Your task to perform on an android device: Show the shopping cart on bestbuy.com. Add "razer huntsman" to the cart on bestbuy.com, then select checkout. Image 0: 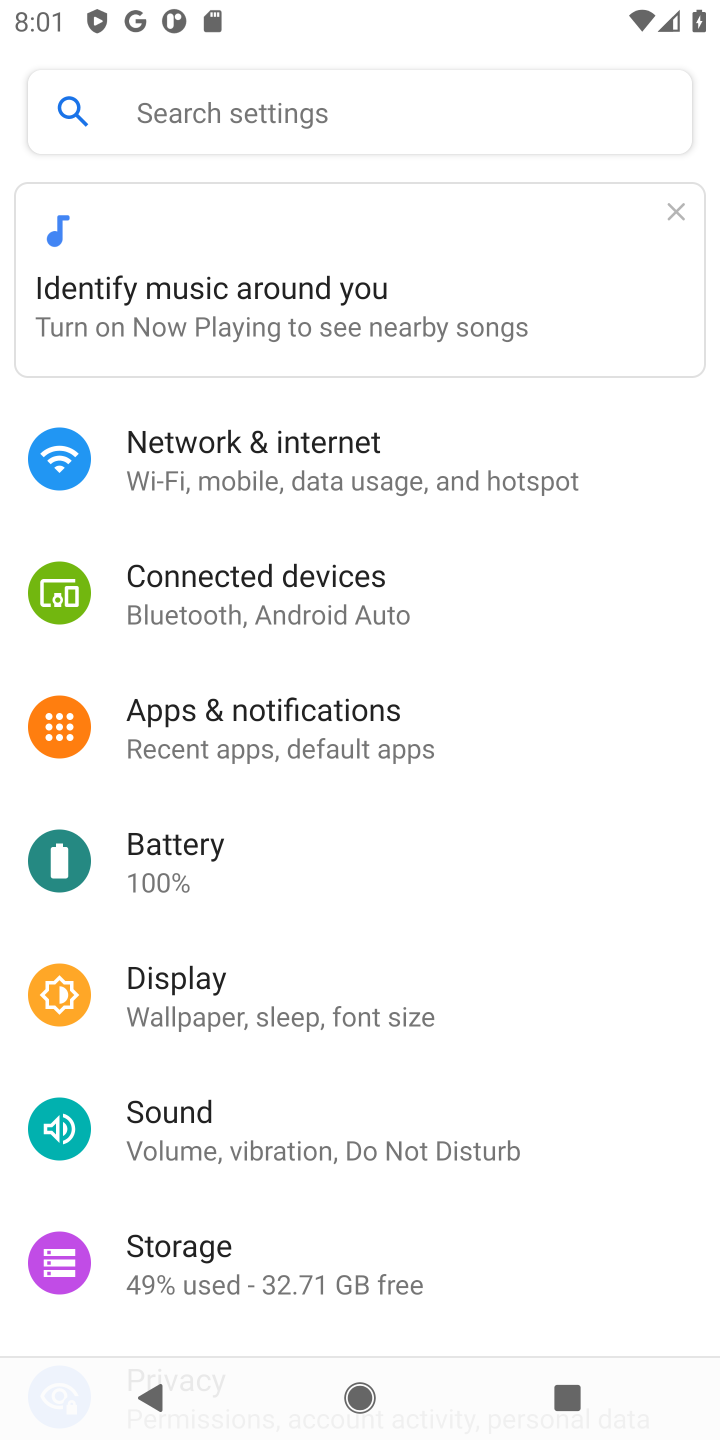
Step 0: press home button
Your task to perform on an android device: Show the shopping cart on bestbuy.com. Add "razer huntsman" to the cart on bestbuy.com, then select checkout. Image 1: 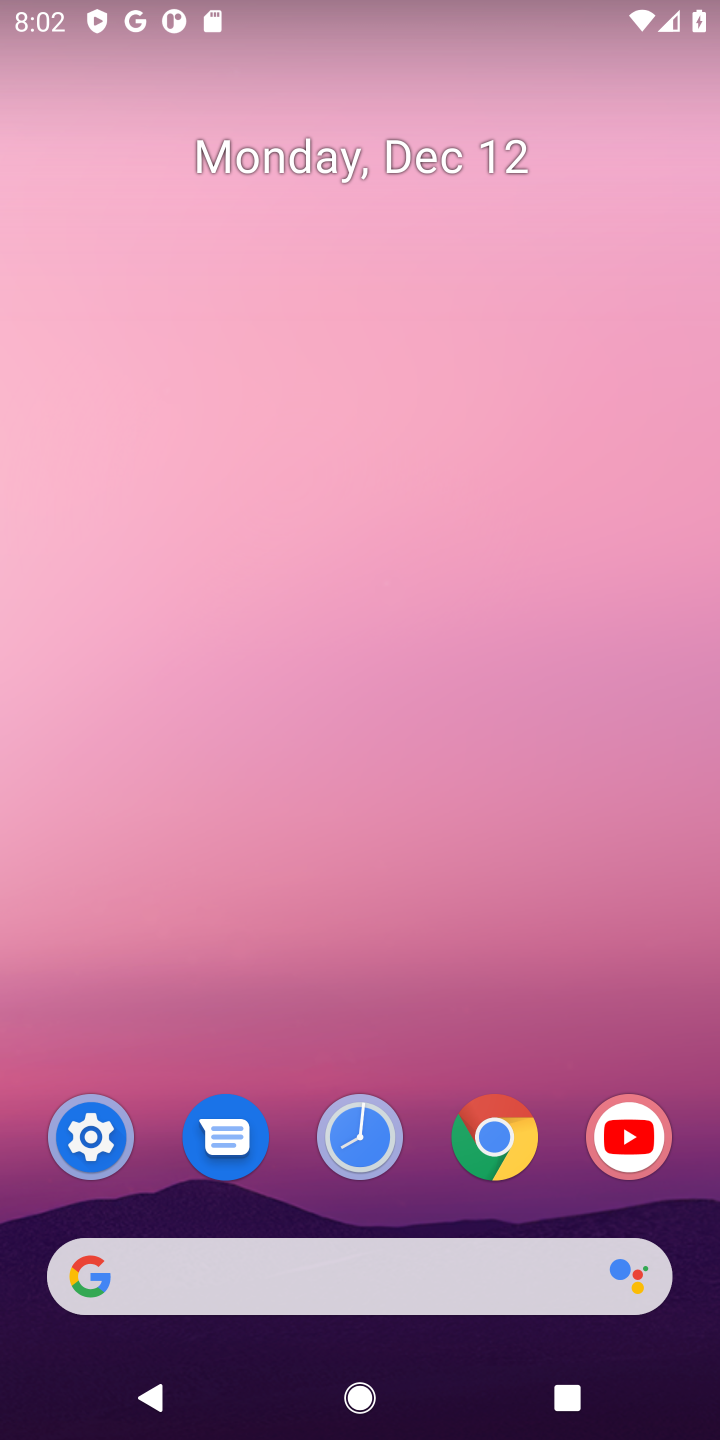
Step 1: click (474, 1154)
Your task to perform on an android device: Show the shopping cart on bestbuy.com. Add "razer huntsman" to the cart on bestbuy.com, then select checkout. Image 2: 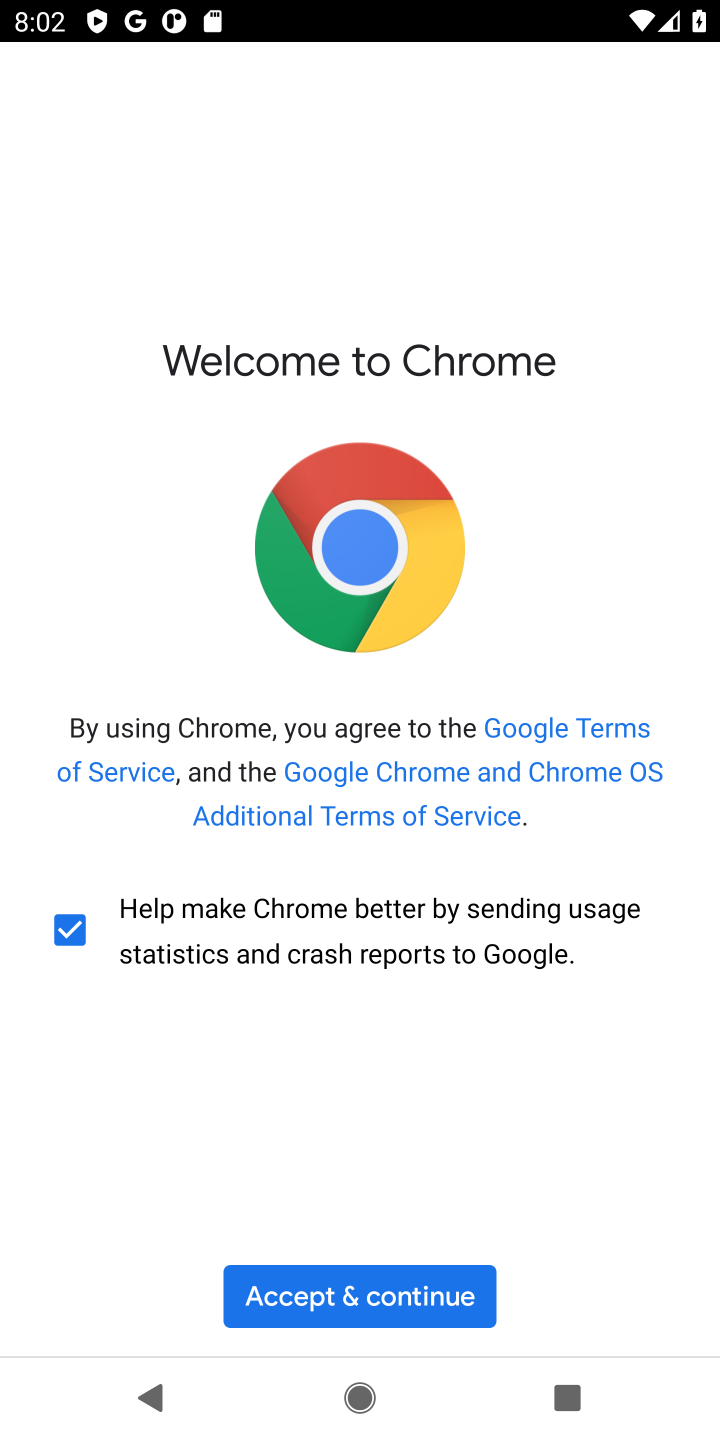
Step 2: click (377, 1294)
Your task to perform on an android device: Show the shopping cart on bestbuy.com. Add "razer huntsman" to the cart on bestbuy.com, then select checkout. Image 3: 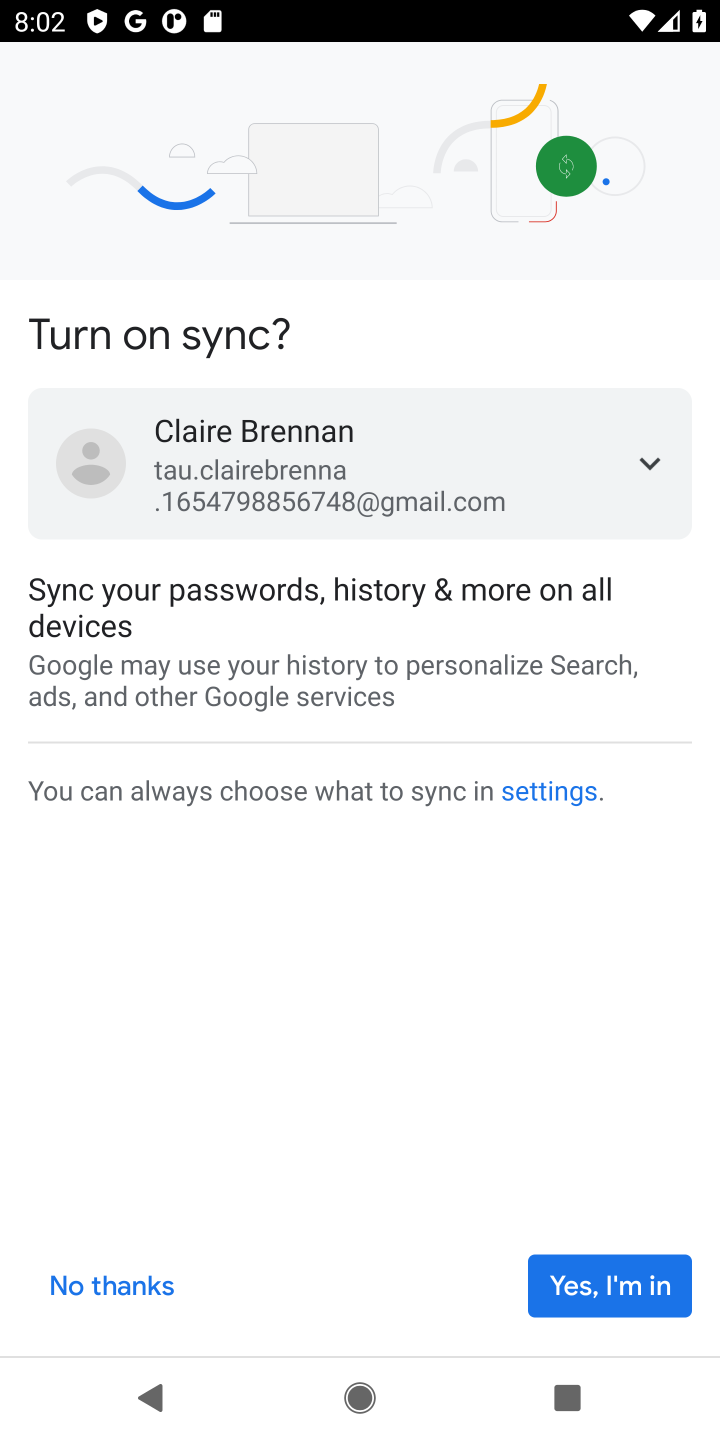
Step 3: click (596, 1293)
Your task to perform on an android device: Show the shopping cart on bestbuy.com. Add "razer huntsman" to the cart on bestbuy.com, then select checkout. Image 4: 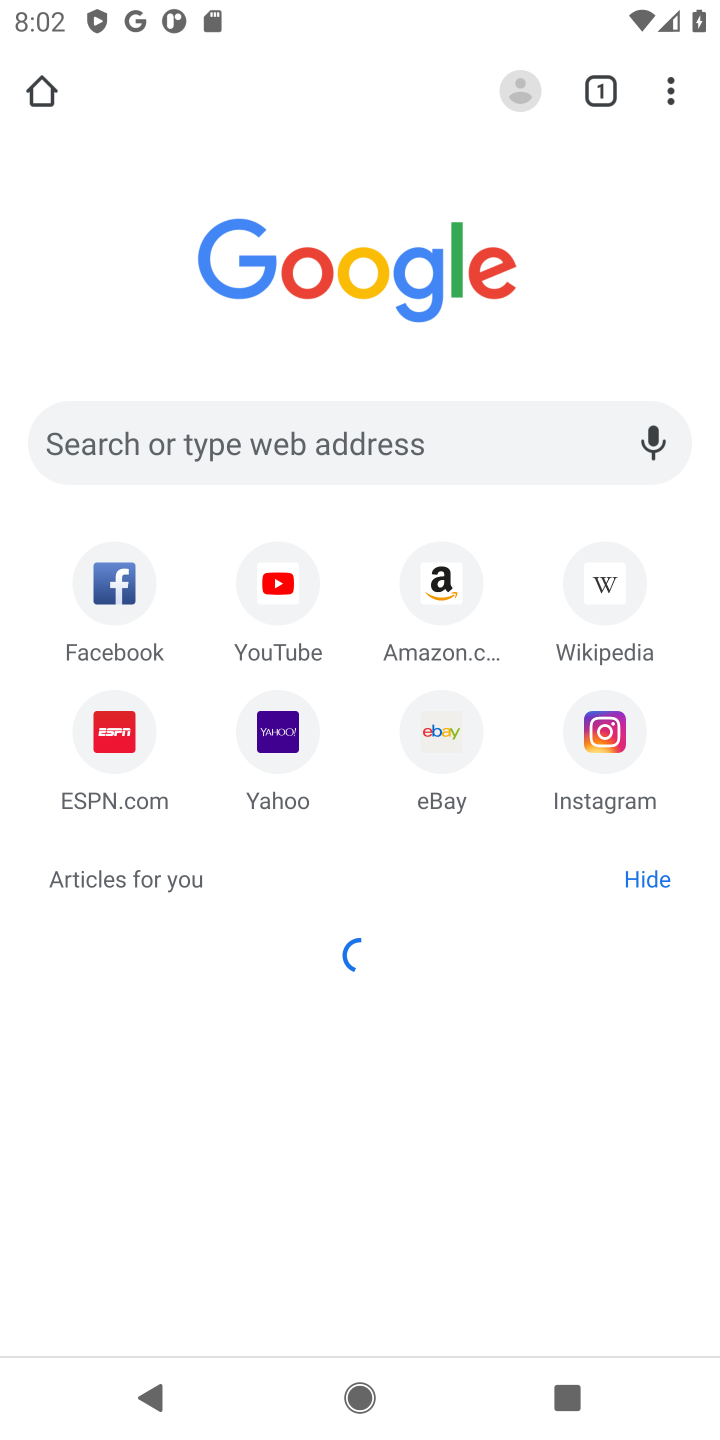
Step 4: click (386, 451)
Your task to perform on an android device: Show the shopping cart on bestbuy.com. Add "razer huntsman" to the cart on bestbuy.com, then select checkout. Image 5: 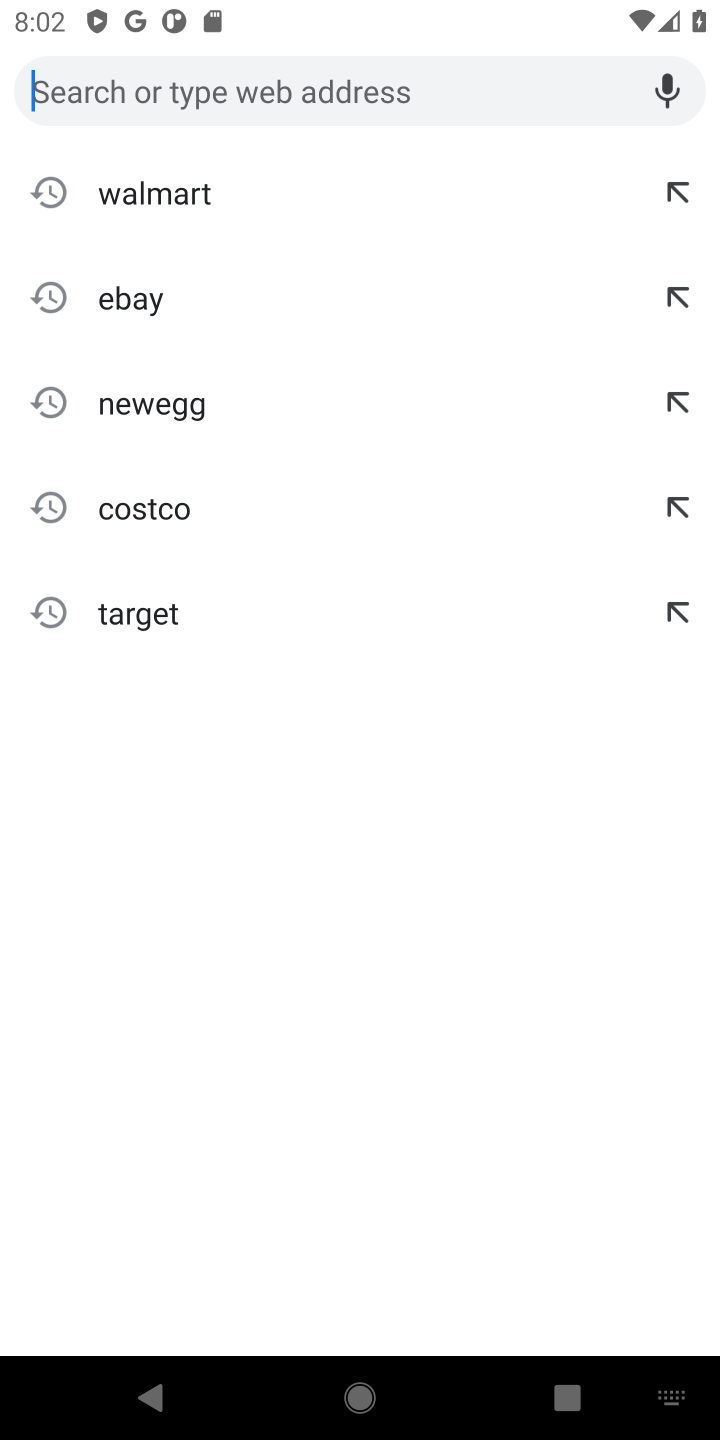
Step 5: type "bestbuy"
Your task to perform on an android device: Show the shopping cart on bestbuy.com. Add "razer huntsman" to the cart on bestbuy.com, then select checkout. Image 6: 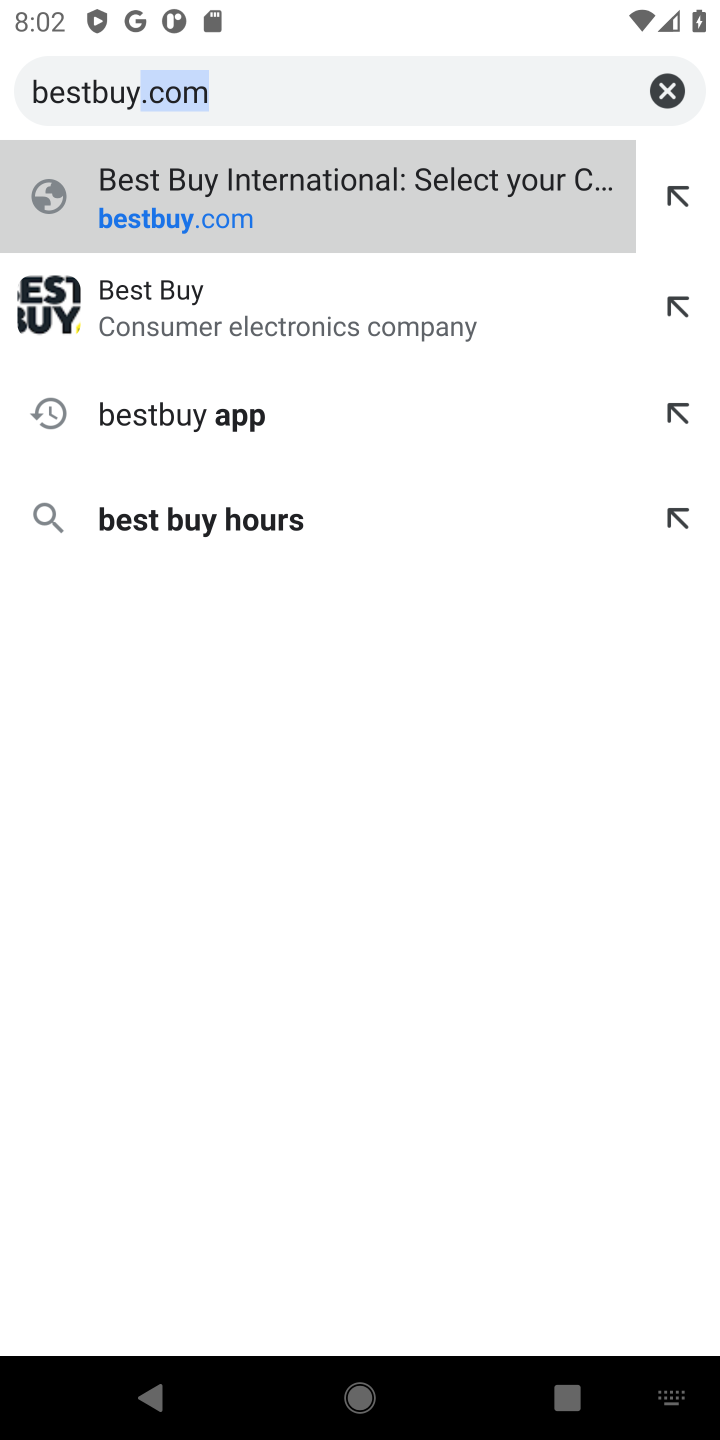
Step 6: click (408, 176)
Your task to perform on an android device: Show the shopping cart on bestbuy.com. Add "razer huntsman" to the cart on bestbuy.com, then select checkout. Image 7: 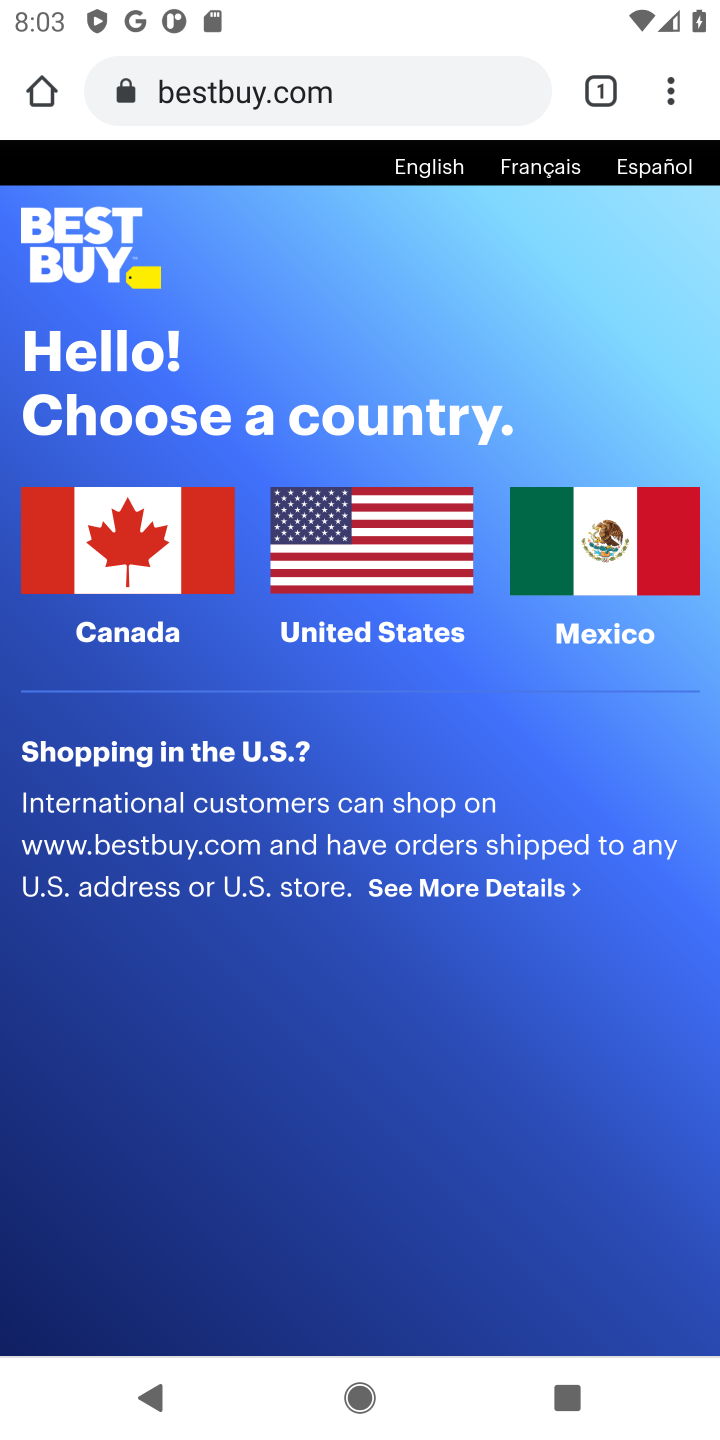
Step 7: click (346, 512)
Your task to perform on an android device: Show the shopping cart on bestbuy.com. Add "razer huntsman" to the cart on bestbuy.com, then select checkout. Image 8: 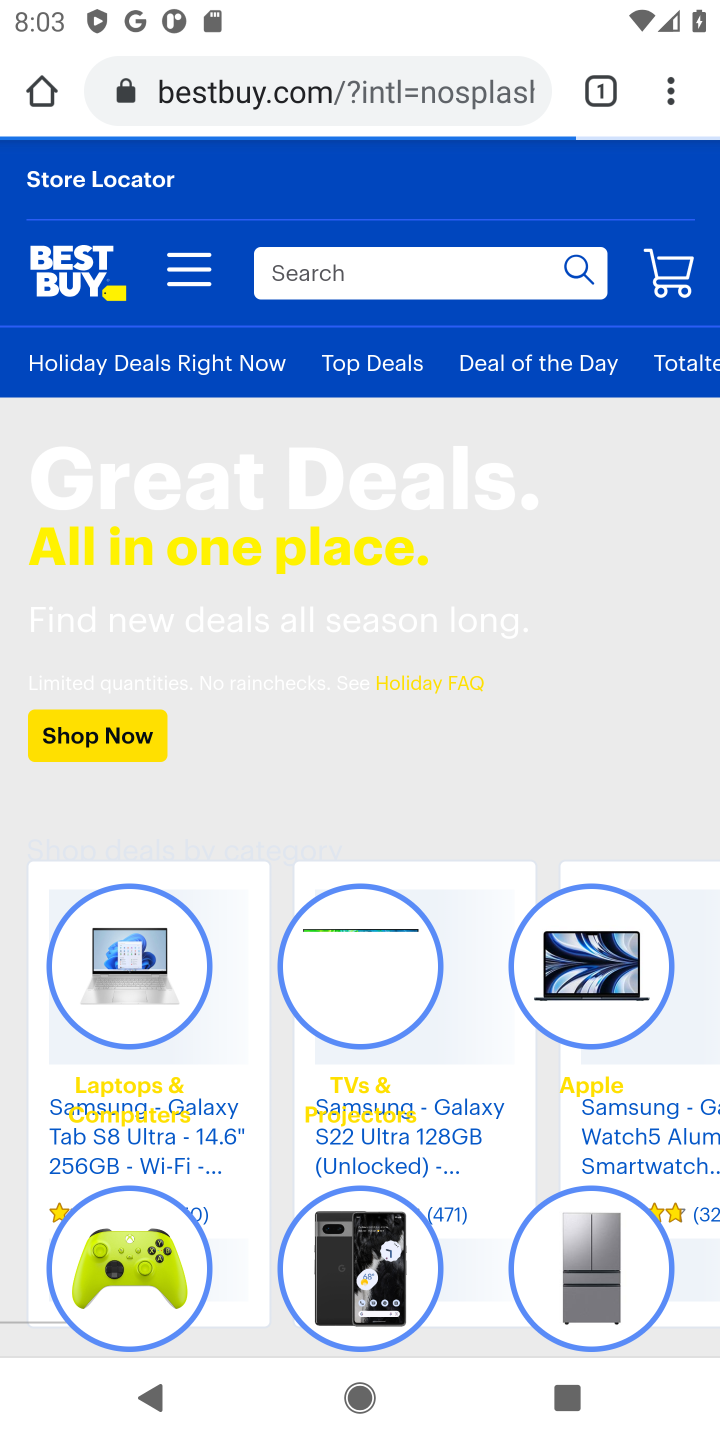
Step 8: click (372, 271)
Your task to perform on an android device: Show the shopping cart on bestbuy.com. Add "razer huntsman" to the cart on bestbuy.com, then select checkout. Image 9: 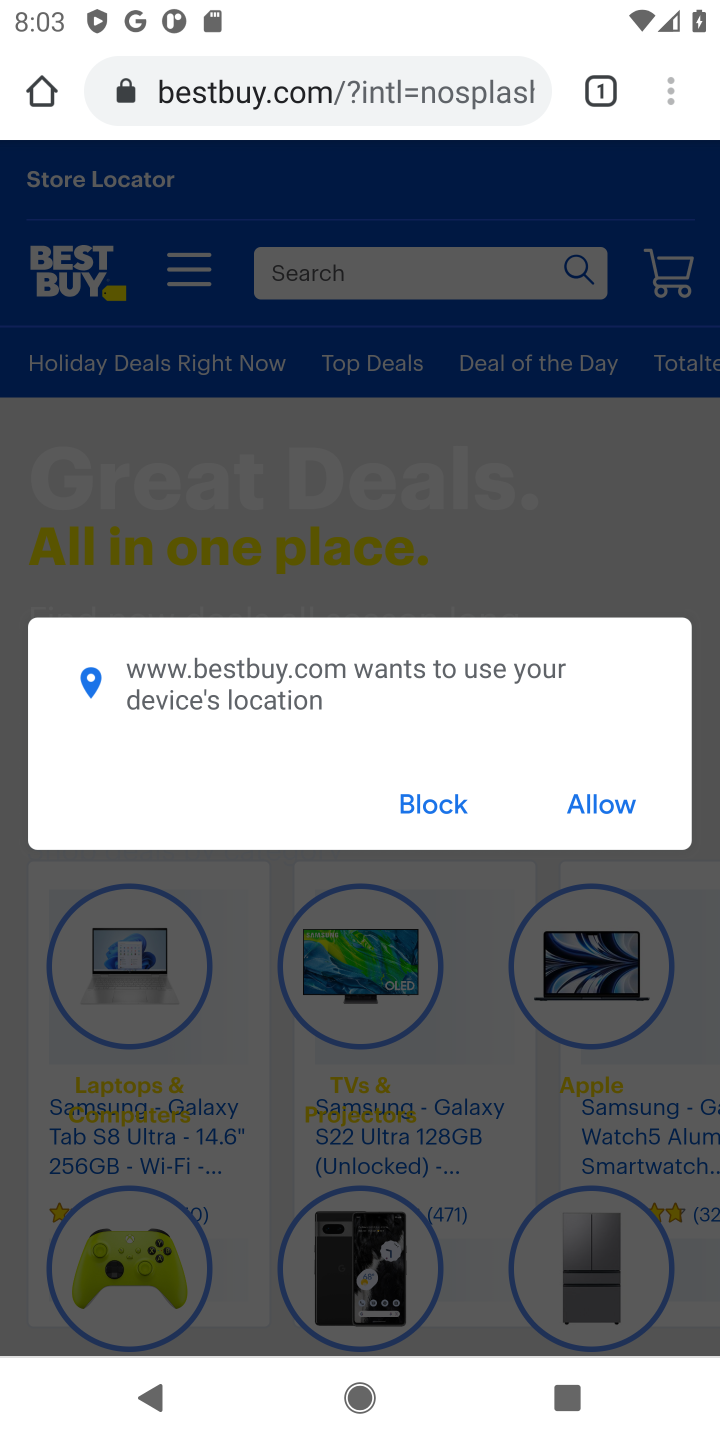
Step 9: type "razer"
Your task to perform on an android device: Show the shopping cart on bestbuy.com. Add "razer huntsman" to the cart on bestbuy.com, then select checkout. Image 10: 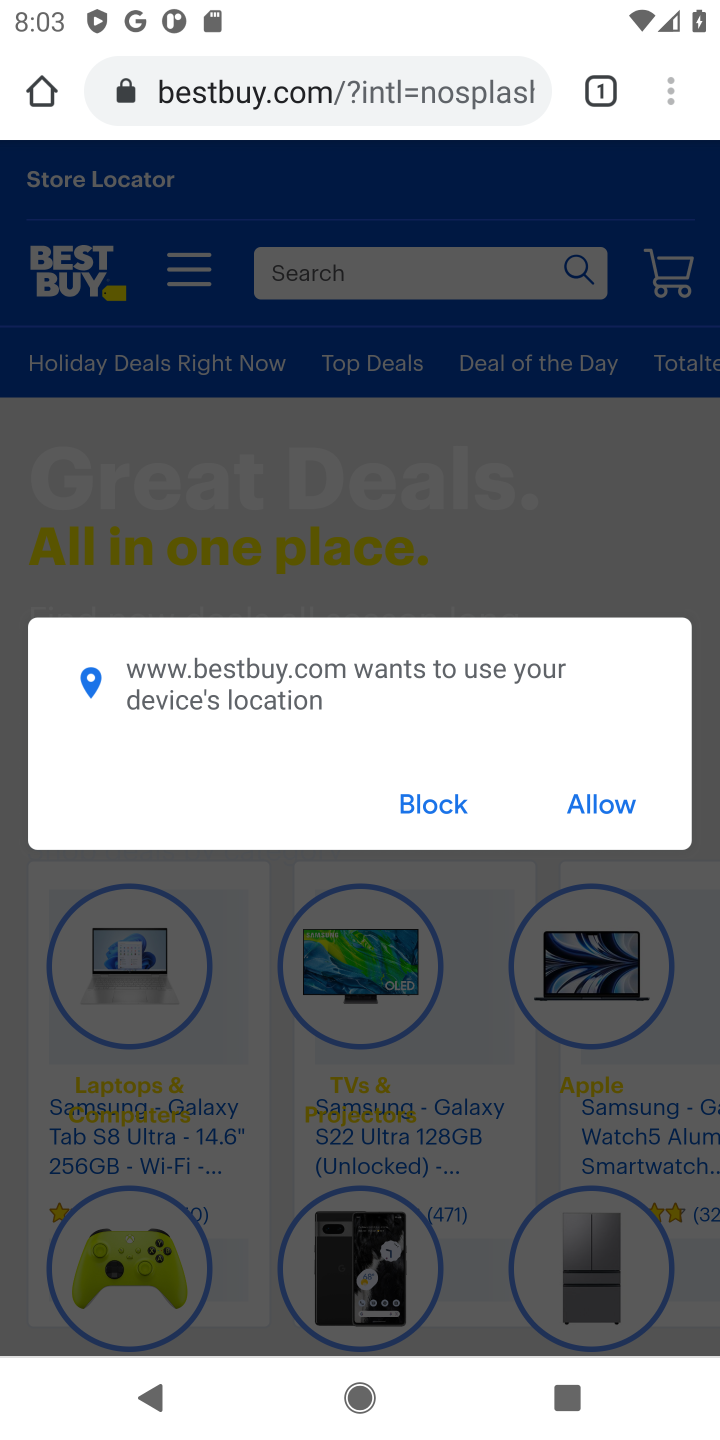
Step 10: click (430, 801)
Your task to perform on an android device: Show the shopping cart on bestbuy.com. Add "razer huntsman" to the cart on bestbuy.com, then select checkout. Image 11: 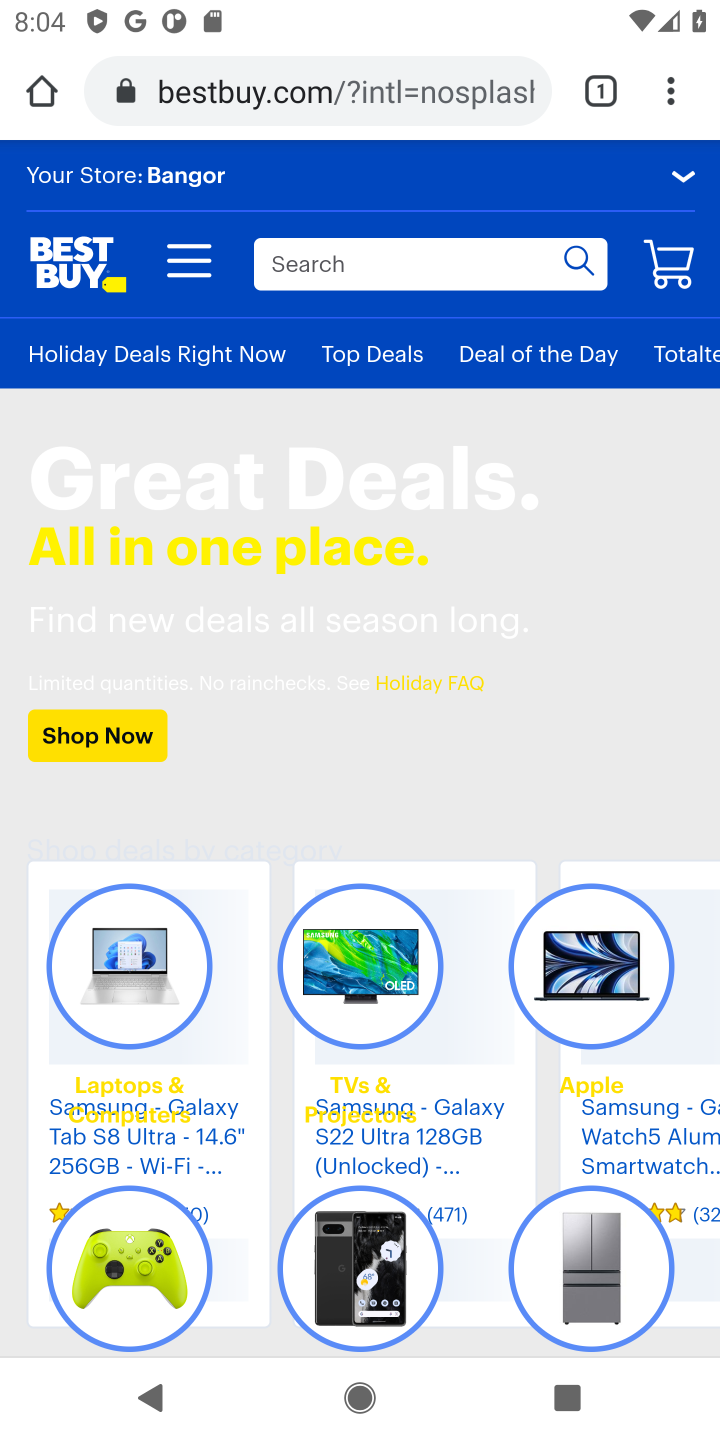
Step 11: click (405, 270)
Your task to perform on an android device: Show the shopping cart on bestbuy.com. Add "razer huntsman" to the cart on bestbuy.com, then select checkout. Image 12: 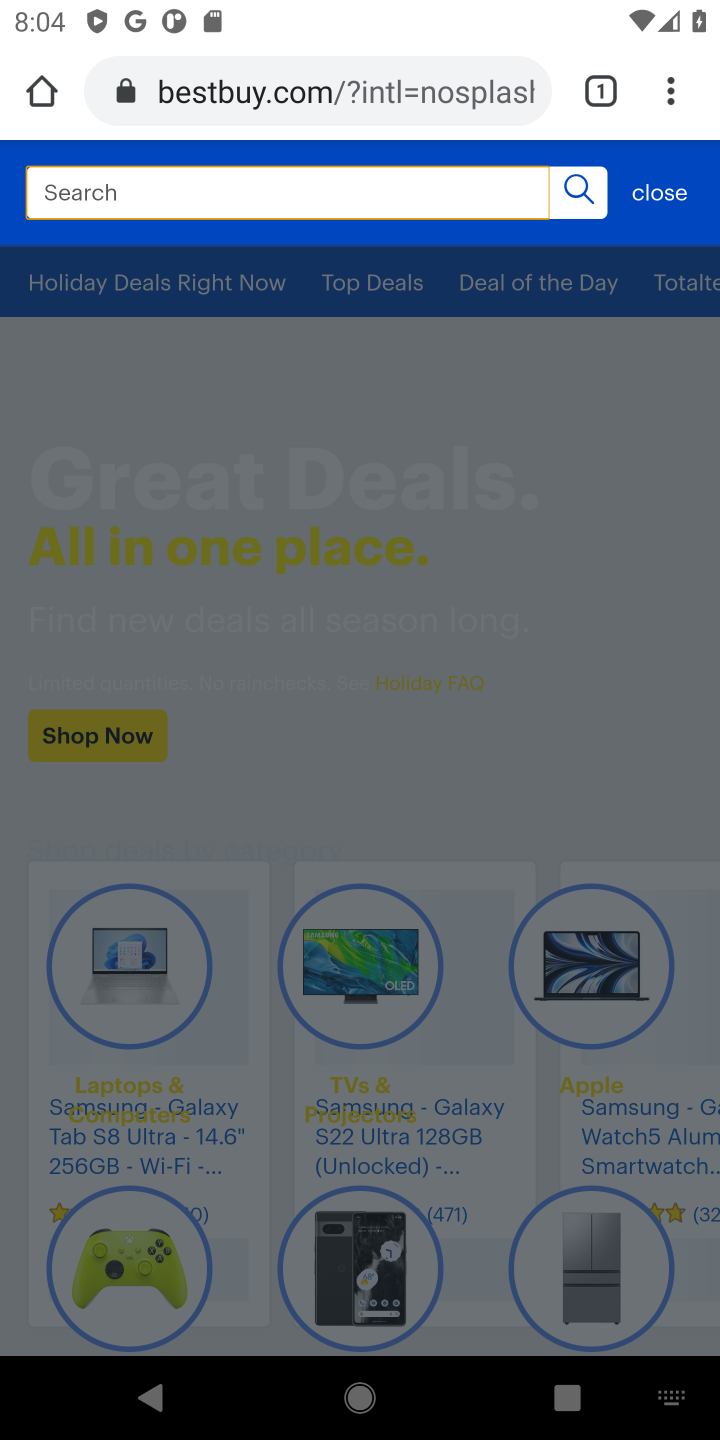
Step 12: type "razer huntsman"
Your task to perform on an android device: Show the shopping cart on bestbuy.com. Add "razer huntsman" to the cart on bestbuy.com, then select checkout. Image 13: 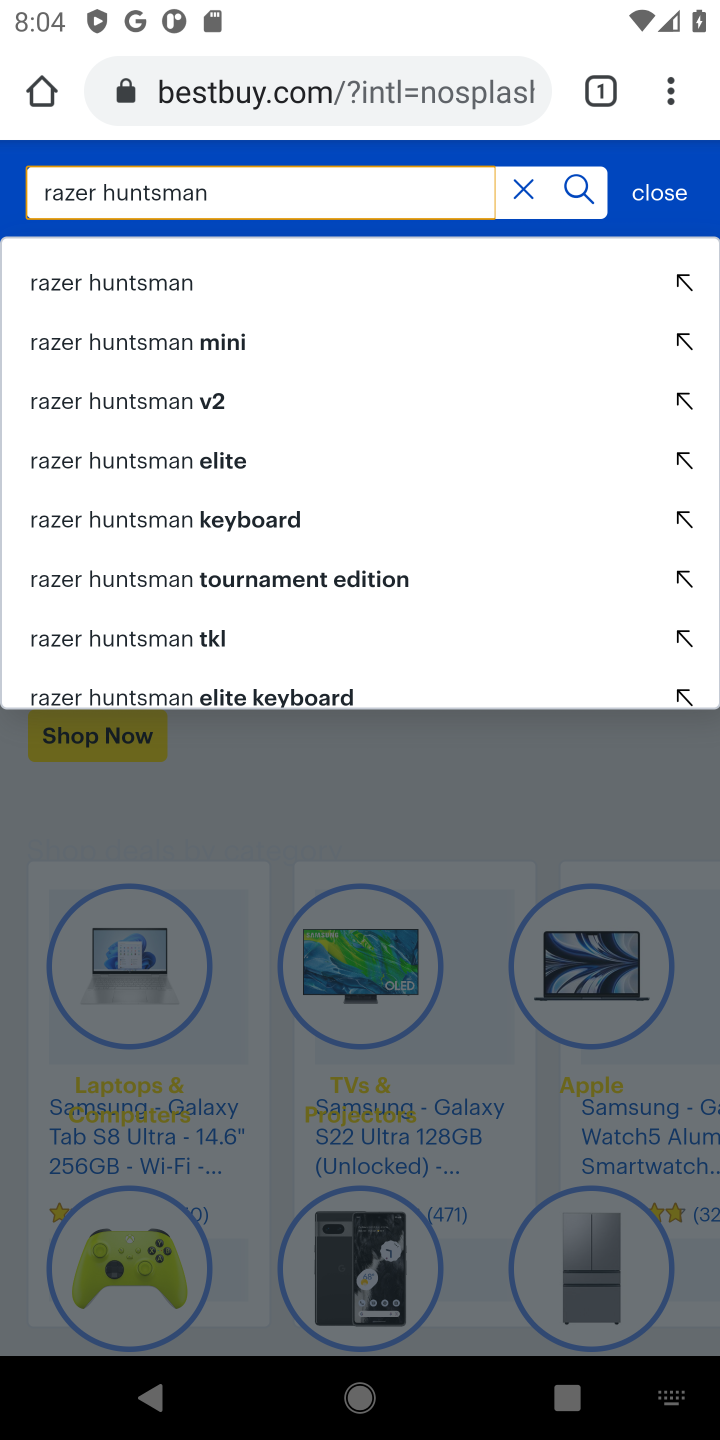
Step 13: click (164, 274)
Your task to perform on an android device: Show the shopping cart on bestbuy.com. Add "razer huntsman" to the cart on bestbuy.com, then select checkout. Image 14: 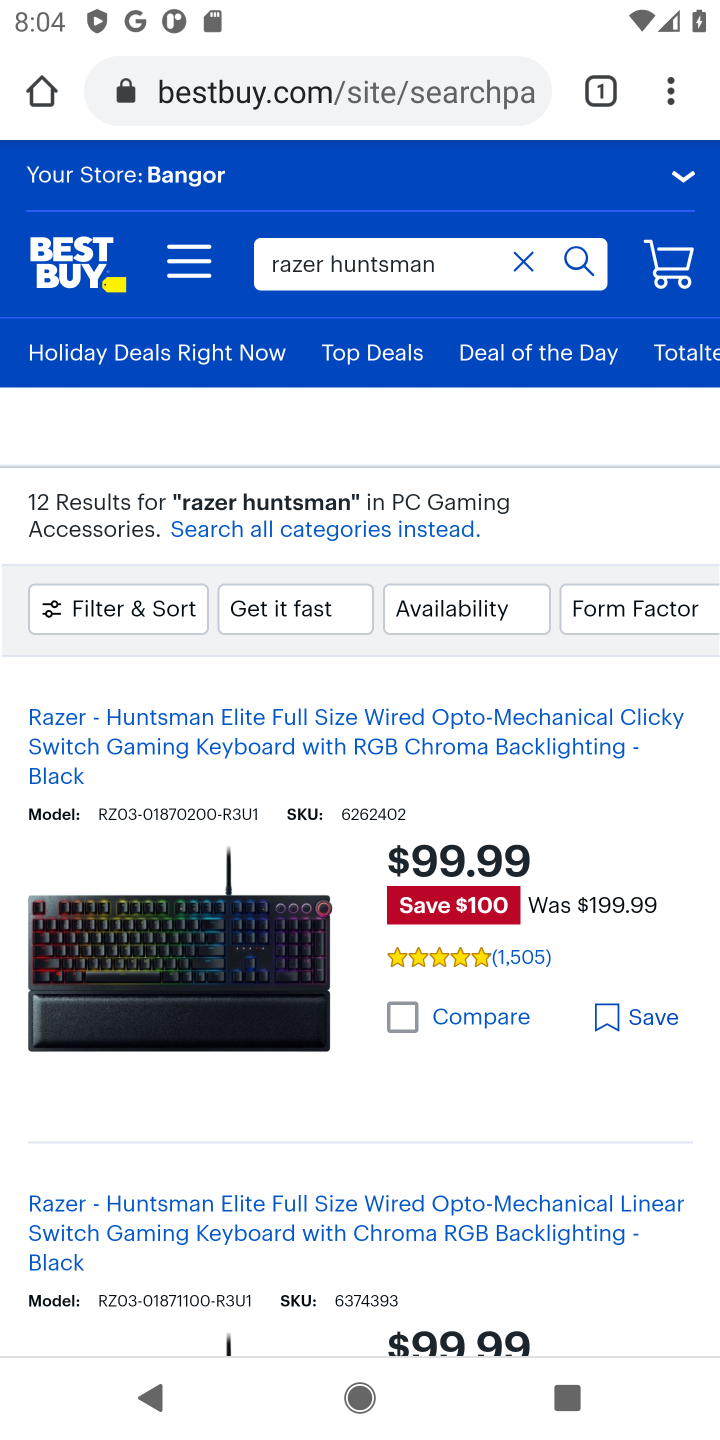
Step 14: click (355, 936)
Your task to perform on an android device: Show the shopping cart on bestbuy.com. Add "razer huntsman" to the cart on bestbuy.com, then select checkout. Image 15: 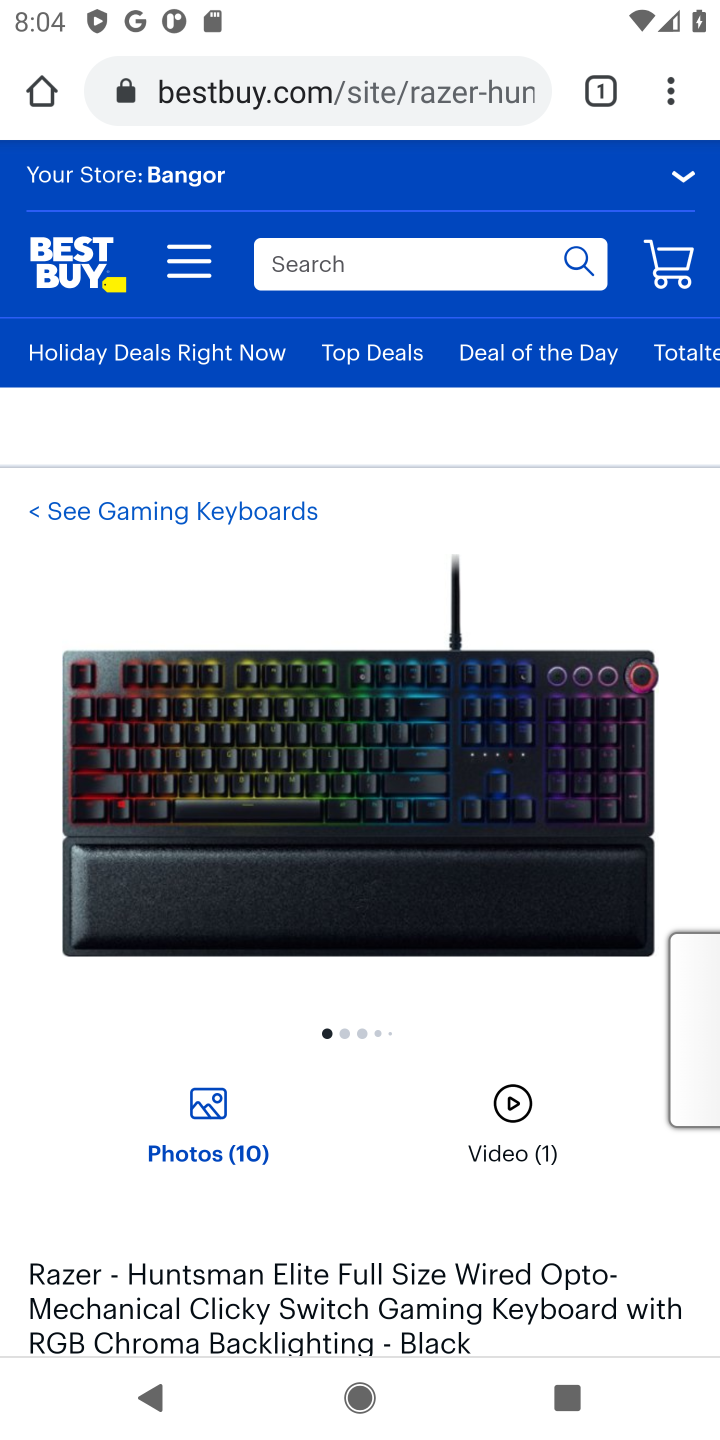
Step 15: drag from (614, 1178) to (526, 465)
Your task to perform on an android device: Show the shopping cart on bestbuy.com. Add "razer huntsman" to the cart on bestbuy.com, then select checkout. Image 16: 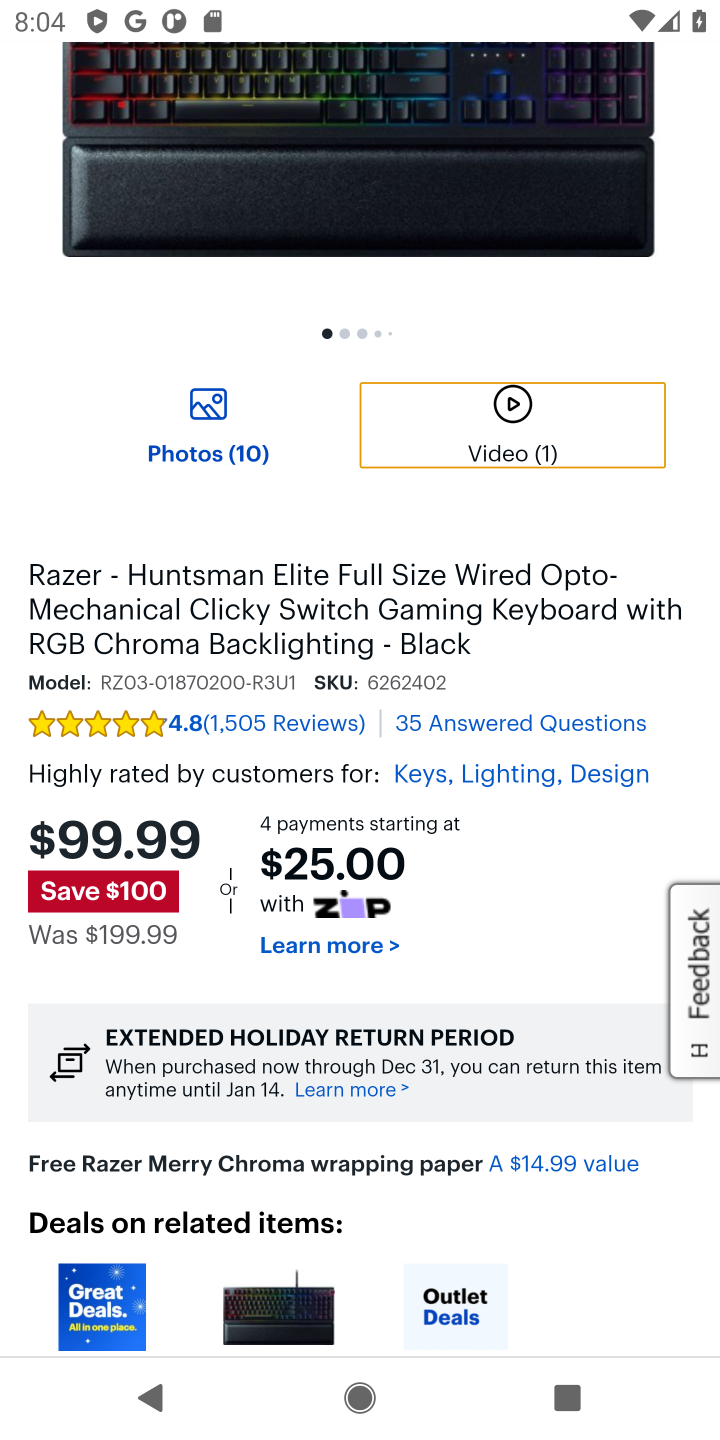
Step 16: drag from (545, 1215) to (486, 401)
Your task to perform on an android device: Show the shopping cart on bestbuy.com. Add "razer huntsman" to the cart on bestbuy.com, then select checkout. Image 17: 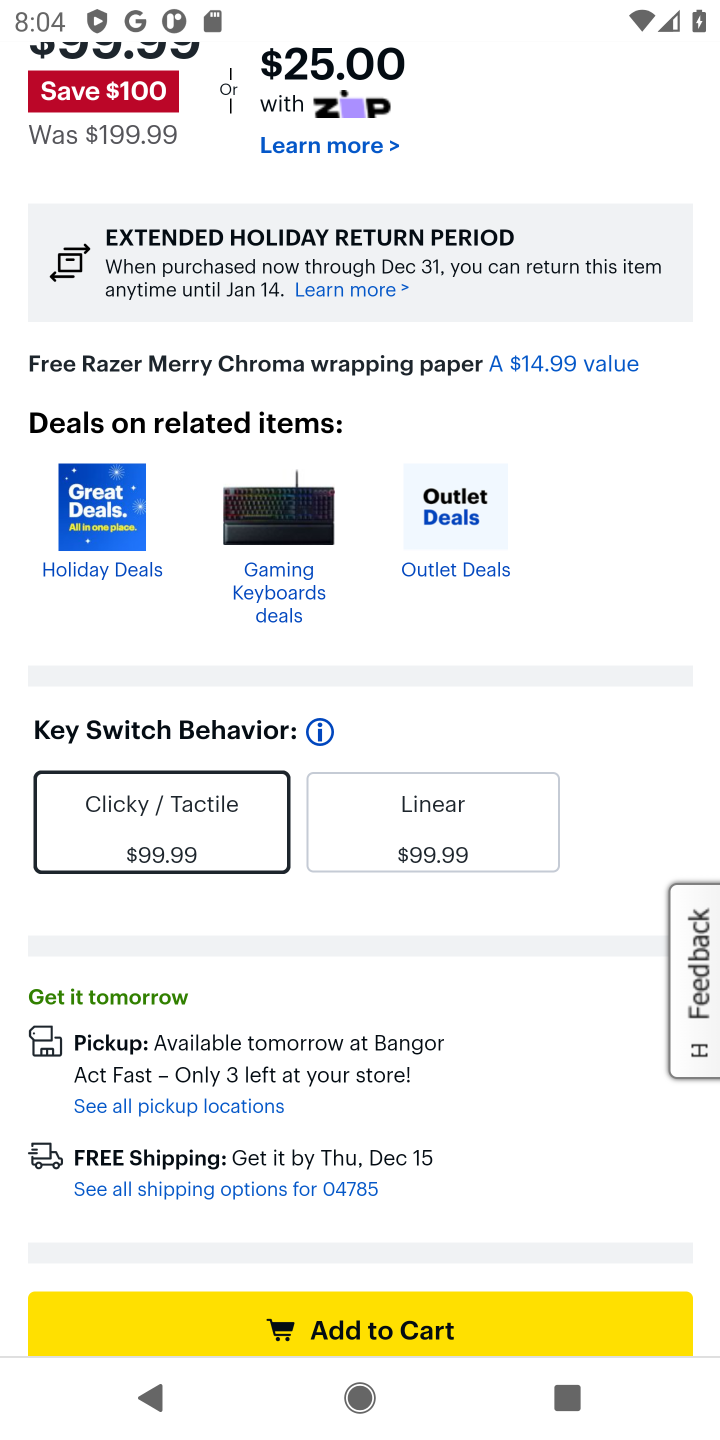
Step 17: click (353, 1321)
Your task to perform on an android device: Show the shopping cart on bestbuy.com. Add "razer huntsman" to the cart on bestbuy.com, then select checkout. Image 18: 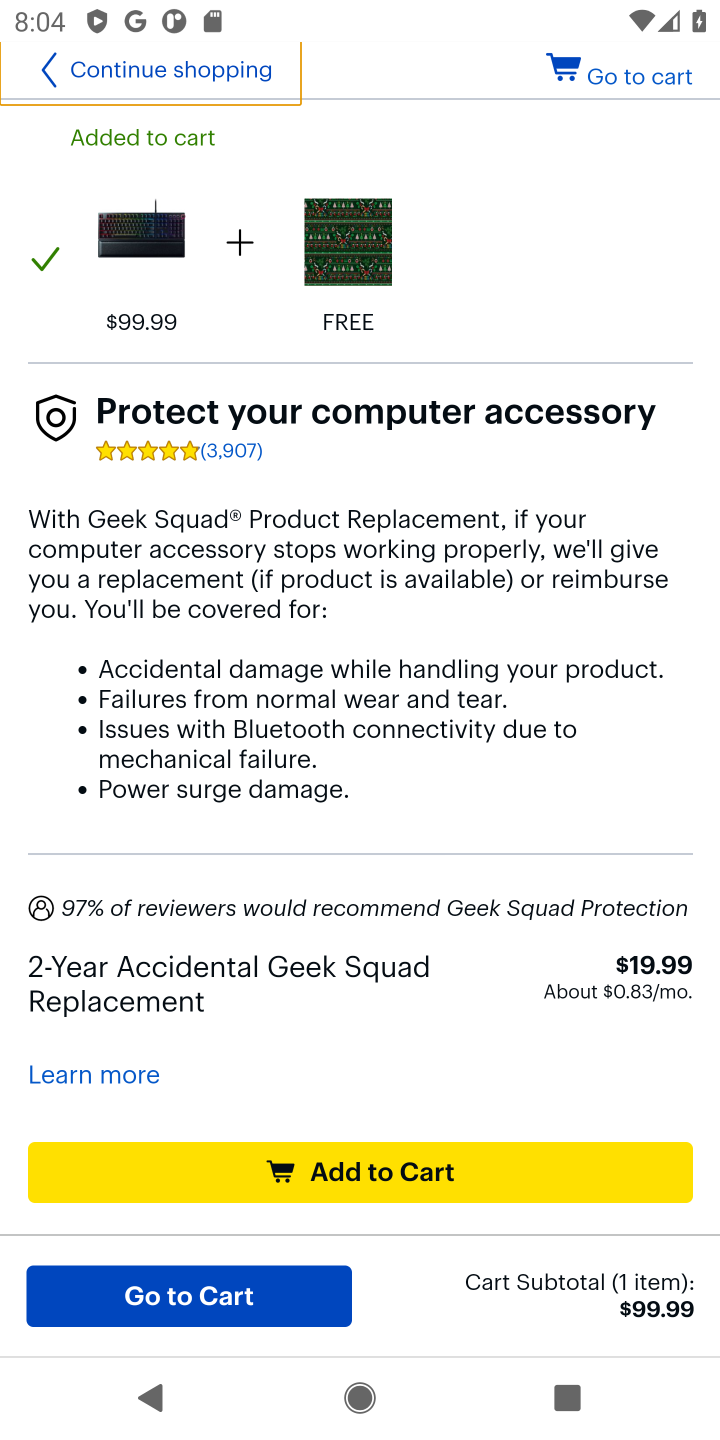
Step 18: click (470, 1166)
Your task to perform on an android device: Show the shopping cart on bestbuy.com. Add "razer huntsman" to the cart on bestbuy.com, then select checkout. Image 19: 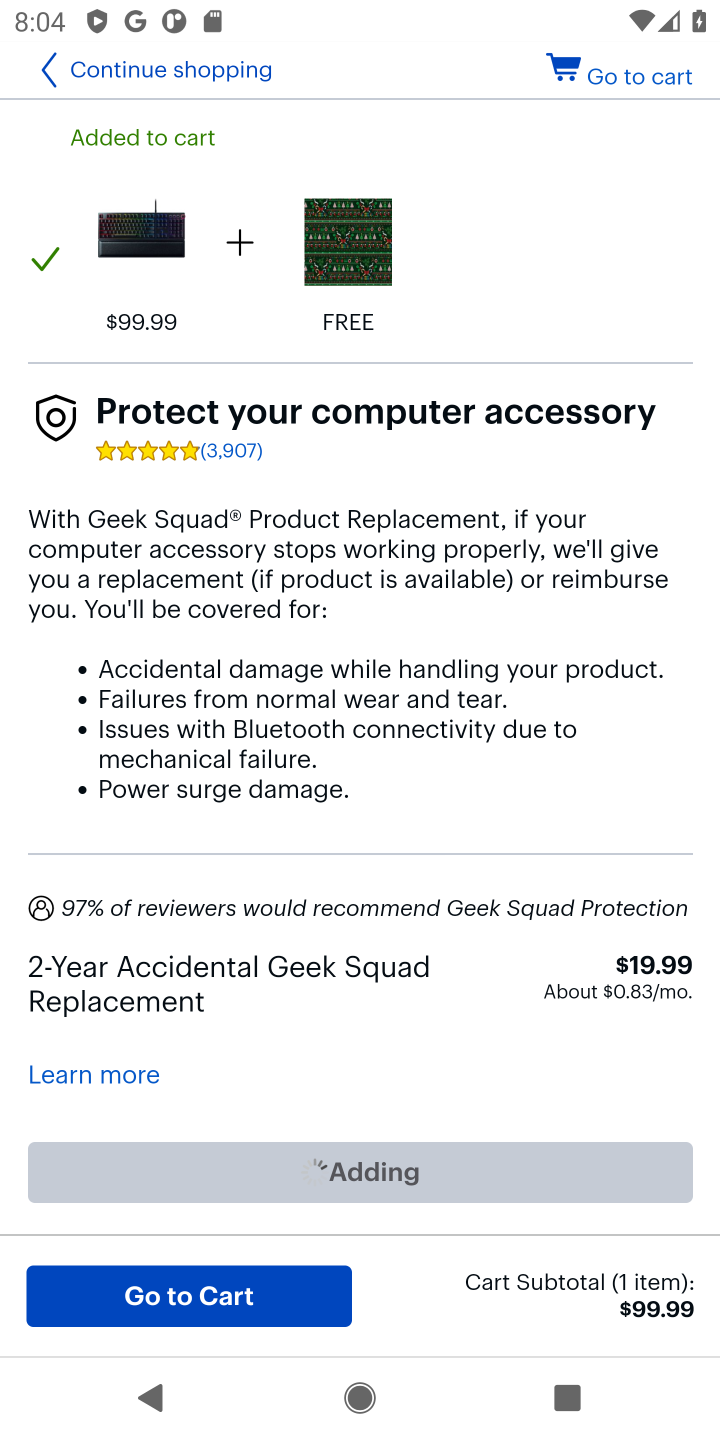
Step 19: click (267, 1298)
Your task to perform on an android device: Show the shopping cart on bestbuy.com. Add "razer huntsman" to the cart on bestbuy.com, then select checkout. Image 20: 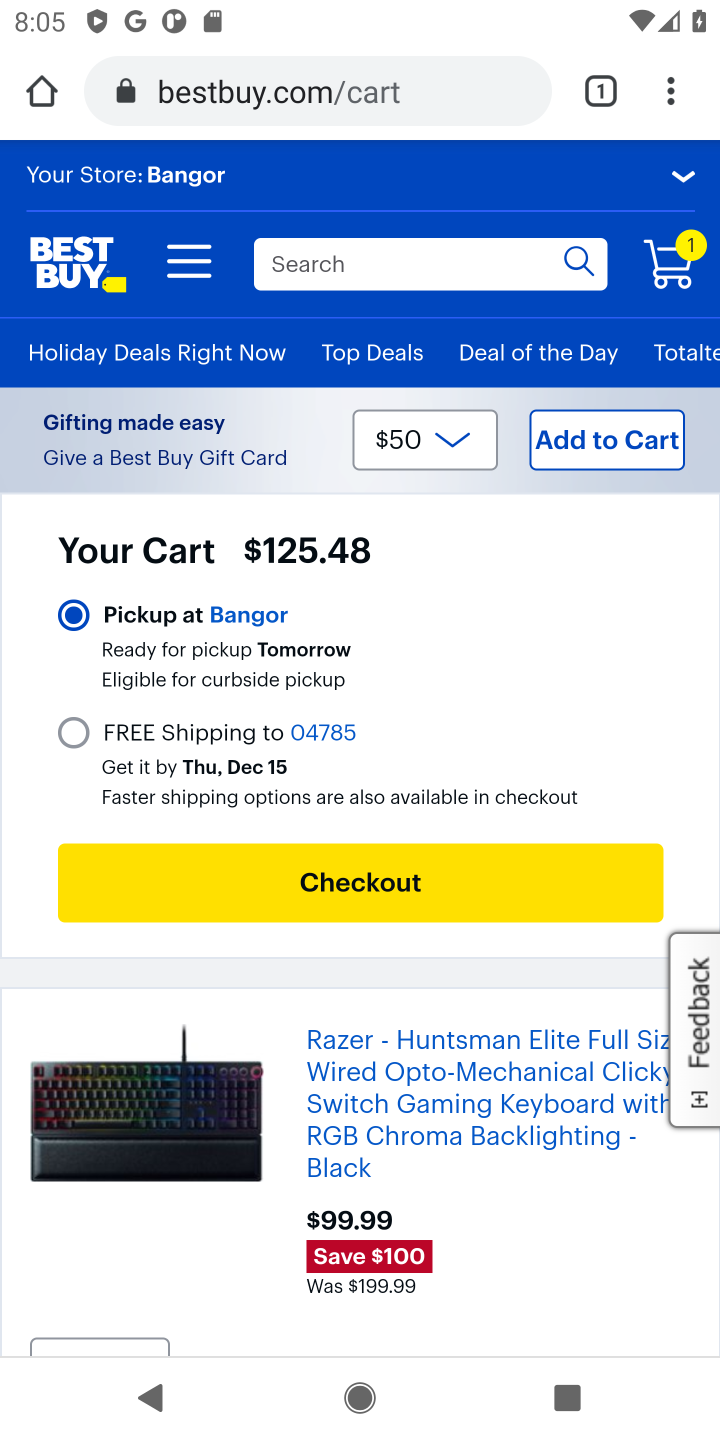
Step 20: click (384, 881)
Your task to perform on an android device: Show the shopping cart on bestbuy.com. Add "razer huntsman" to the cart on bestbuy.com, then select checkout. Image 21: 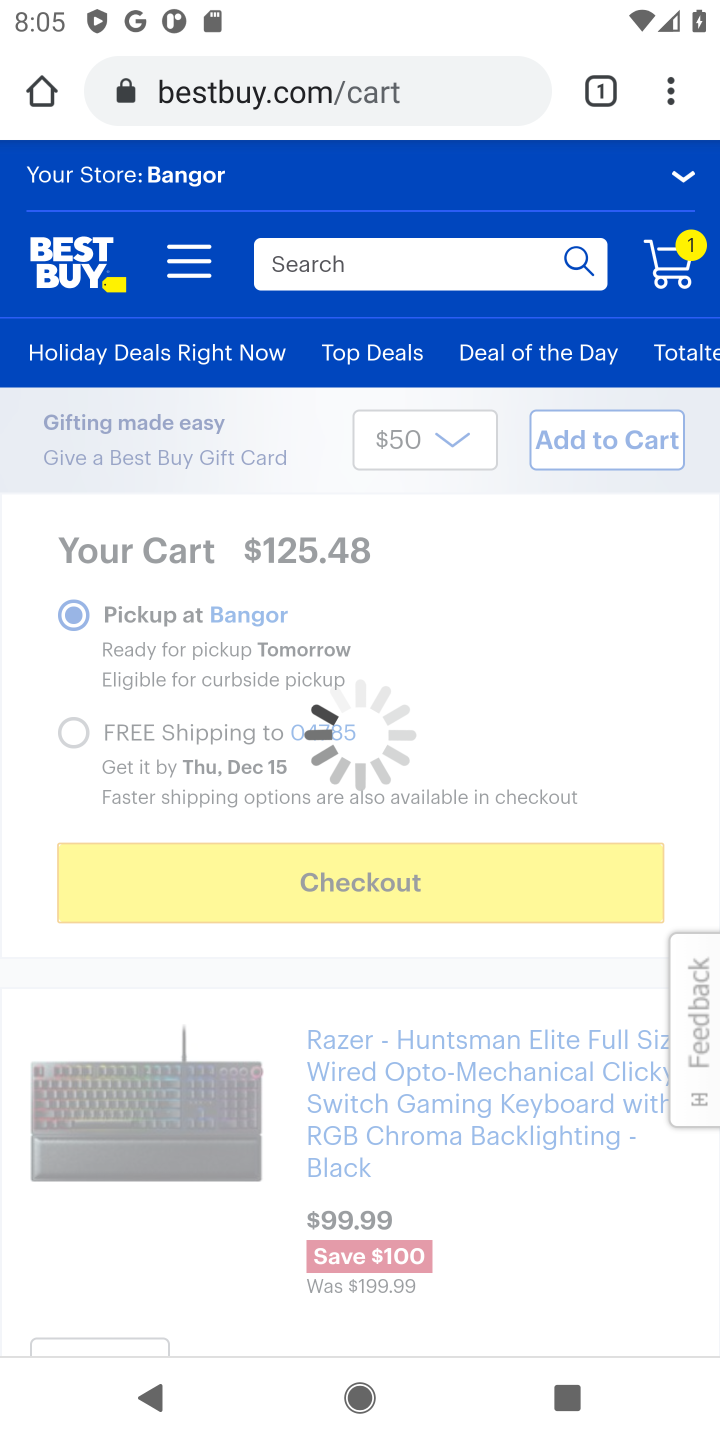
Step 21: task complete